Your task to perform on an android device: turn on sleep mode Image 0: 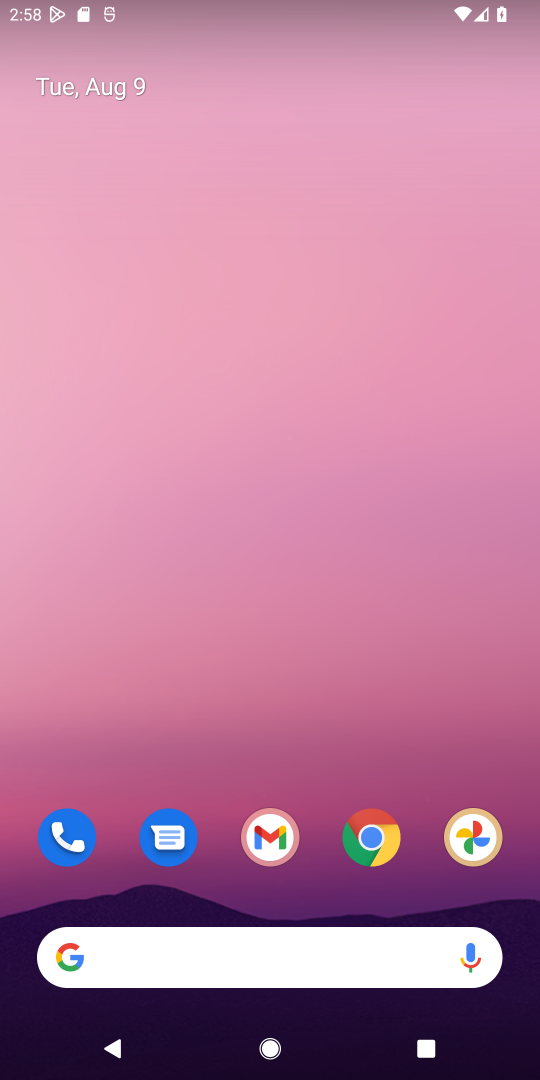
Step 0: drag from (246, 867) to (251, 58)
Your task to perform on an android device: turn on sleep mode Image 1: 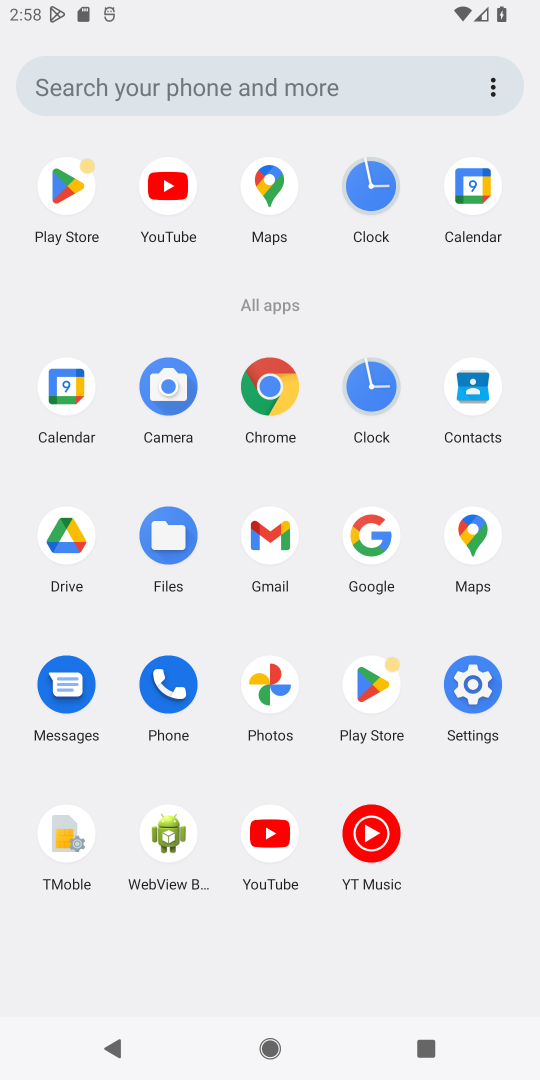
Step 1: click (455, 682)
Your task to perform on an android device: turn on sleep mode Image 2: 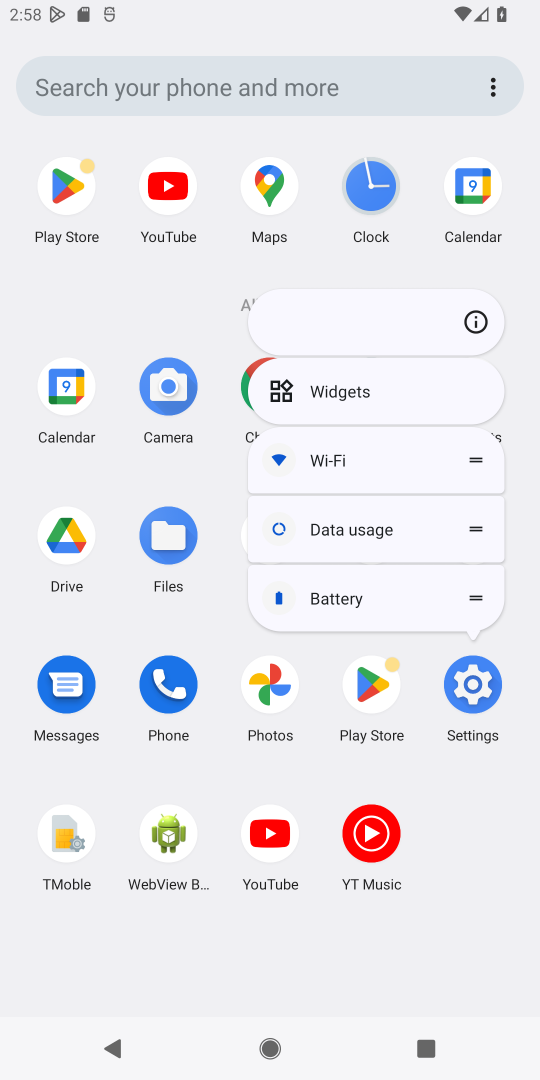
Step 2: click (494, 688)
Your task to perform on an android device: turn on sleep mode Image 3: 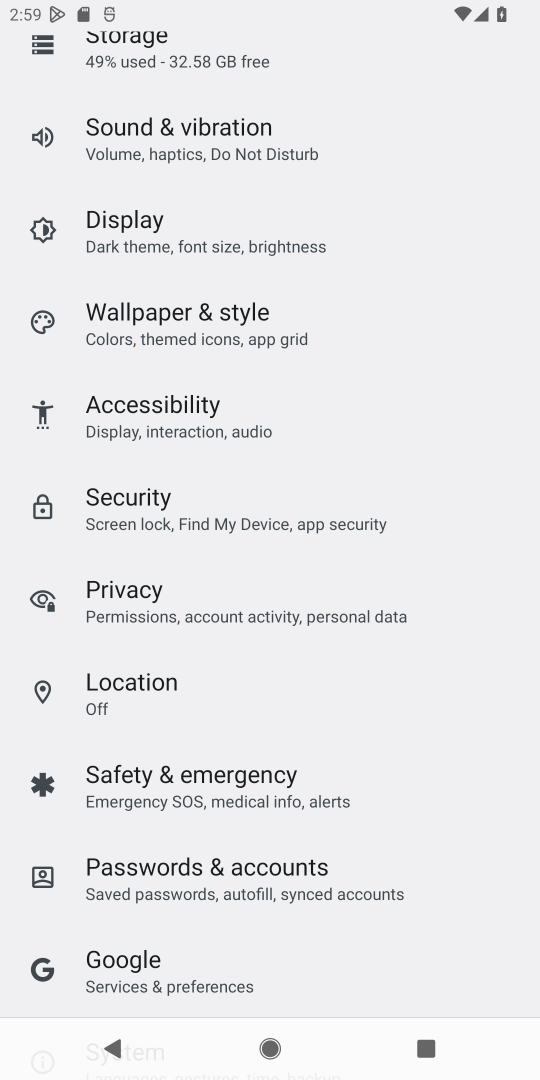
Step 3: task complete